Your task to perform on an android device: Go to CNN.com Image 0: 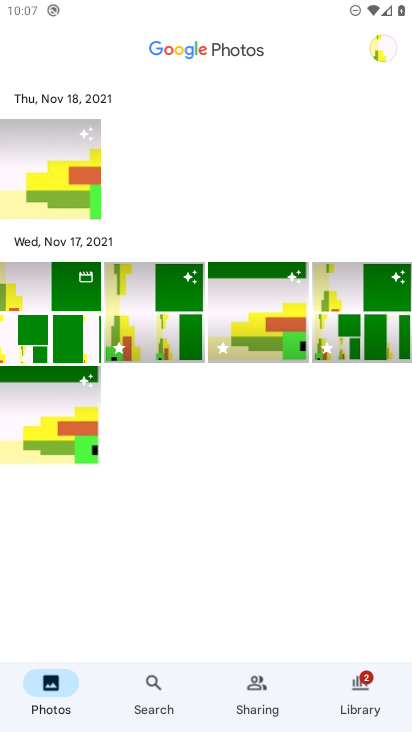
Step 0: press home button
Your task to perform on an android device: Go to CNN.com Image 1: 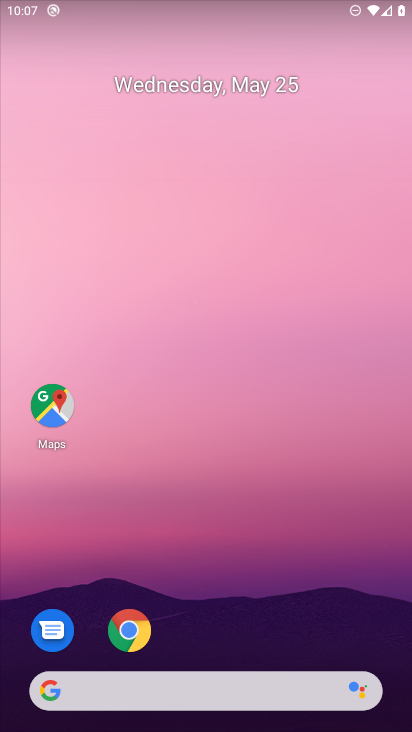
Step 1: drag from (121, 671) to (122, 313)
Your task to perform on an android device: Go to CNN.com Image 2: 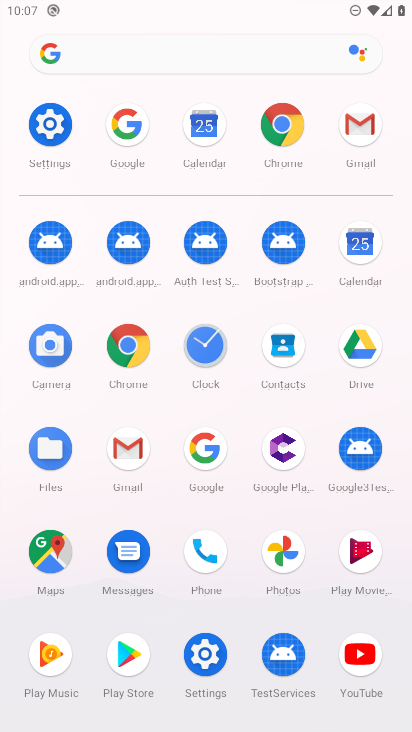
Step 2: click (213, 452)
Your task to perform on an android device: Go to CNN.com Image 3: 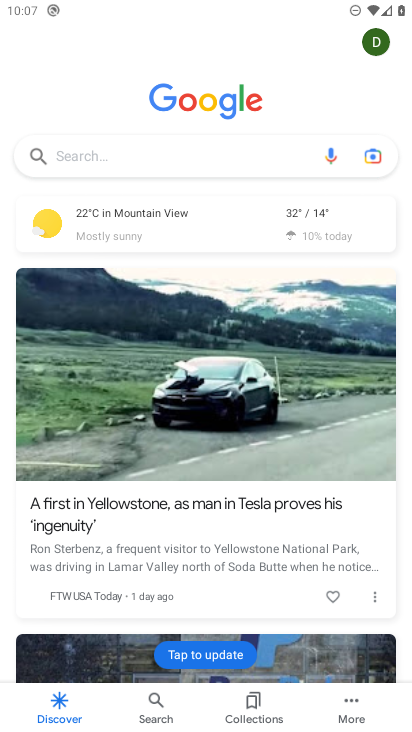
Step 3: drag from (139, 149) to (48, 149)
Your task to perform on an android device: Go to CNN.com Image 4: 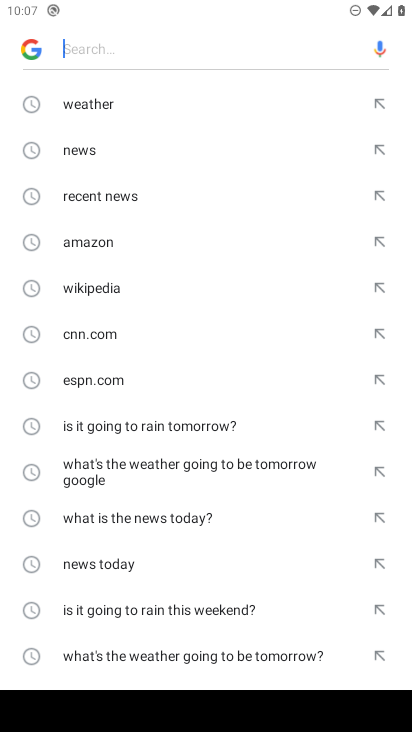
Step 4: click (82, 331)
Your task to perform on an android device: Go to CNN.com Image 5: 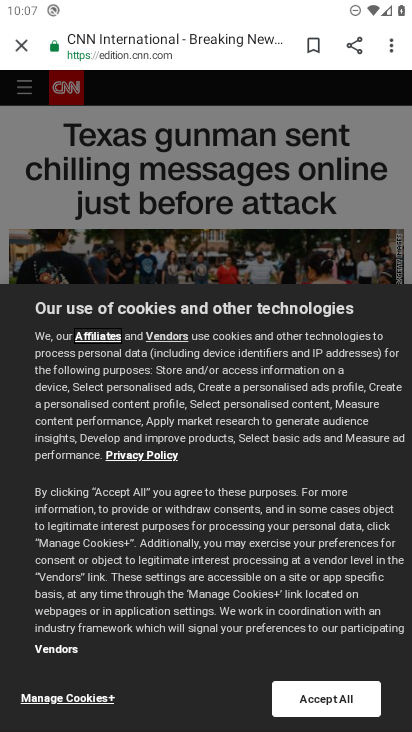
Step 5: task complete